Your task to perform on an android device: change text size in settings app Image 0: 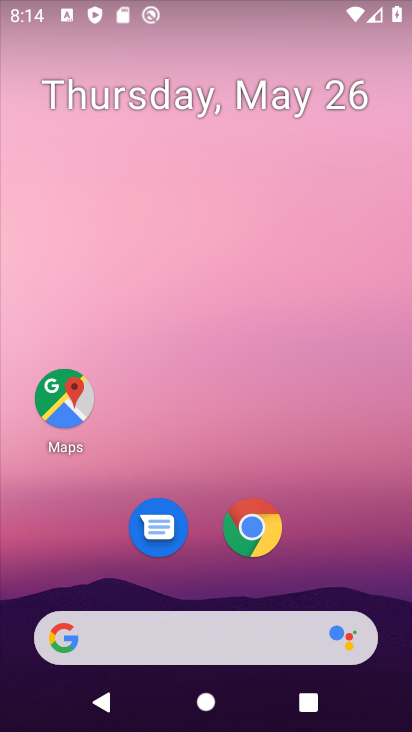
Step 0: drag from (109, 444) to (304, 133)
Your task to perform on an android device: change text size in settings app Image 1: 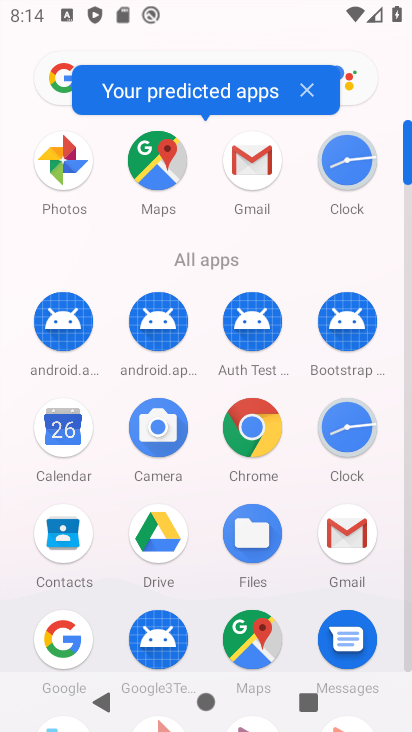
Step 1: drag from (90, 443) to (192, 204)
Your task to perform on an android device: change text size in settings app Image 2: 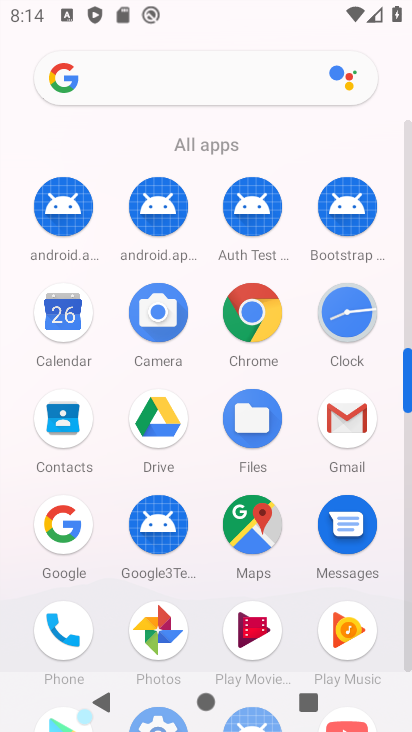
Step 2: drag from (64, 496) to (225, 179)
Your task to perform on an android device: change text size in settings app Image 3: 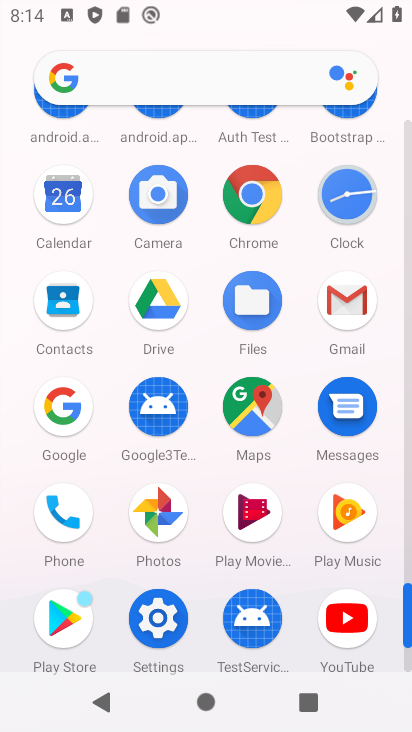
Step 3: click (153, 620)
Your task to perform on an android device: change text size in settings app Image 4: 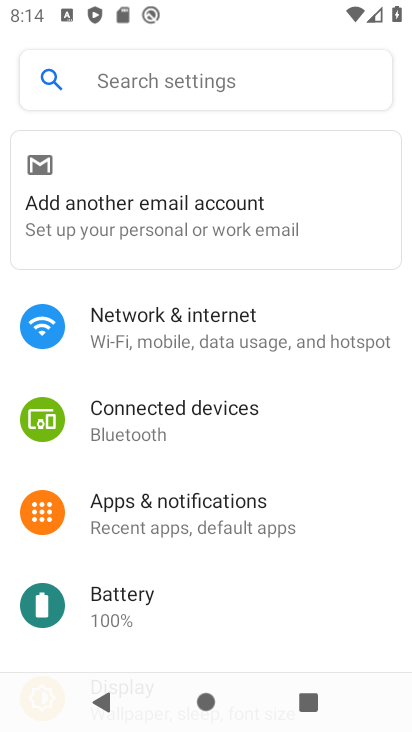
Step 4: drag from (36, 392) to (210, 136)
Your task to perform on an android device: change text size in settings app Image 5: 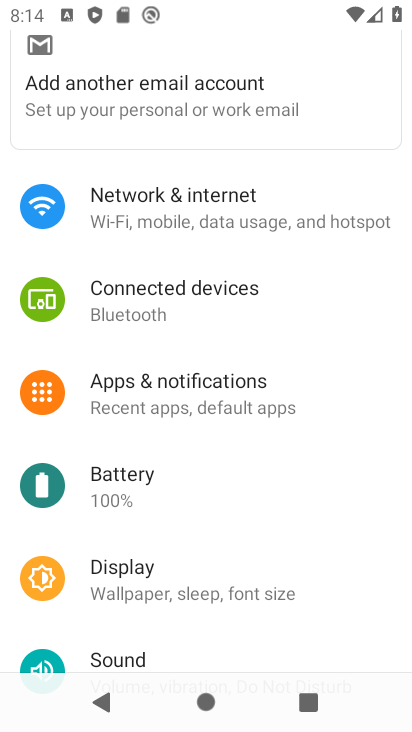
Step 5: click (201, 591)
Your task to perform on an android device: change text size in settings app Image 6: 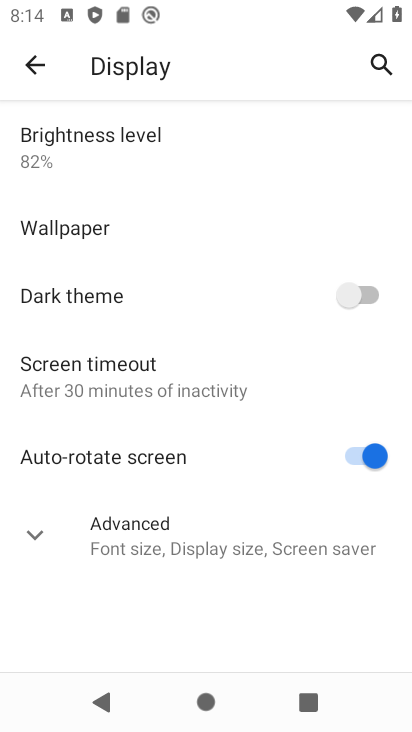
Step 6: click (142, 553)
Your task to perform on an android device: change text size in settings app Image 7: 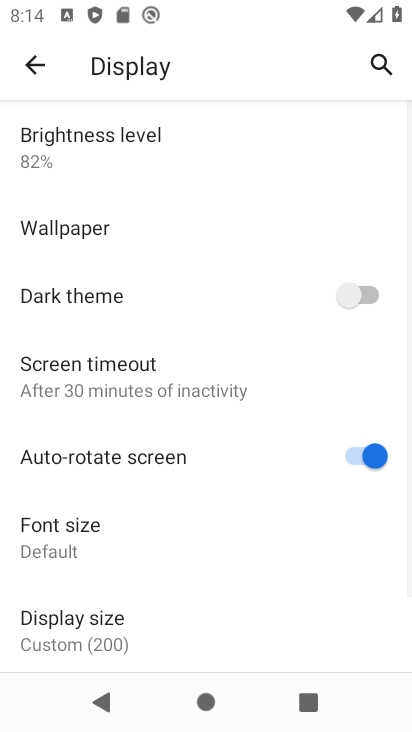
Step 7: click (79, 554)
Your task to perform on an android device: change text size in settings app Image 8: 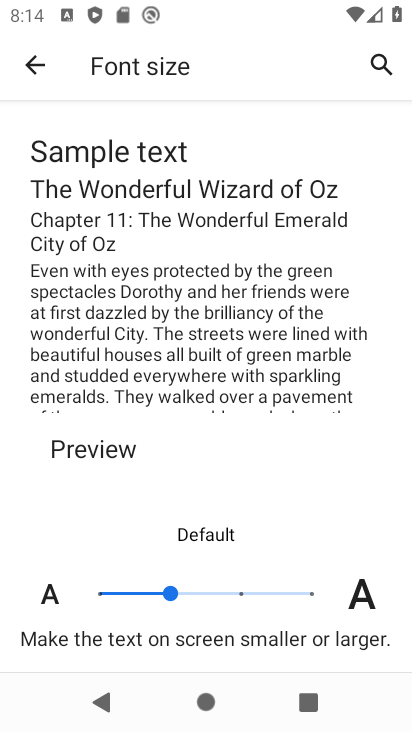
Step 8: click (243, 594)
Your task to perform on an android device: change text size in settings app Image 9: 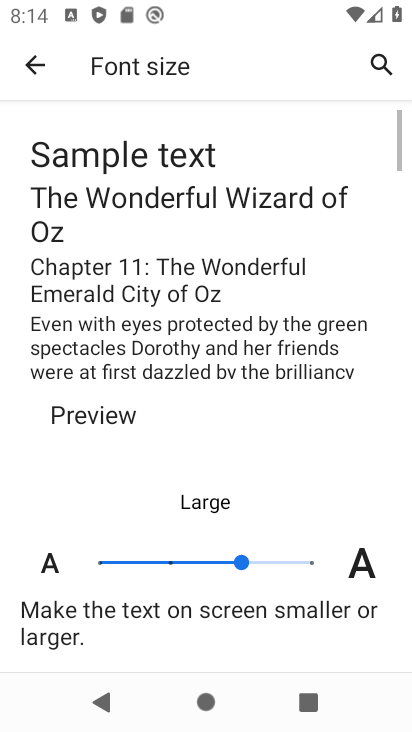
Step 9: task complete